Your task to perform on an android device: Show me popular videos on Youtube Image 0: 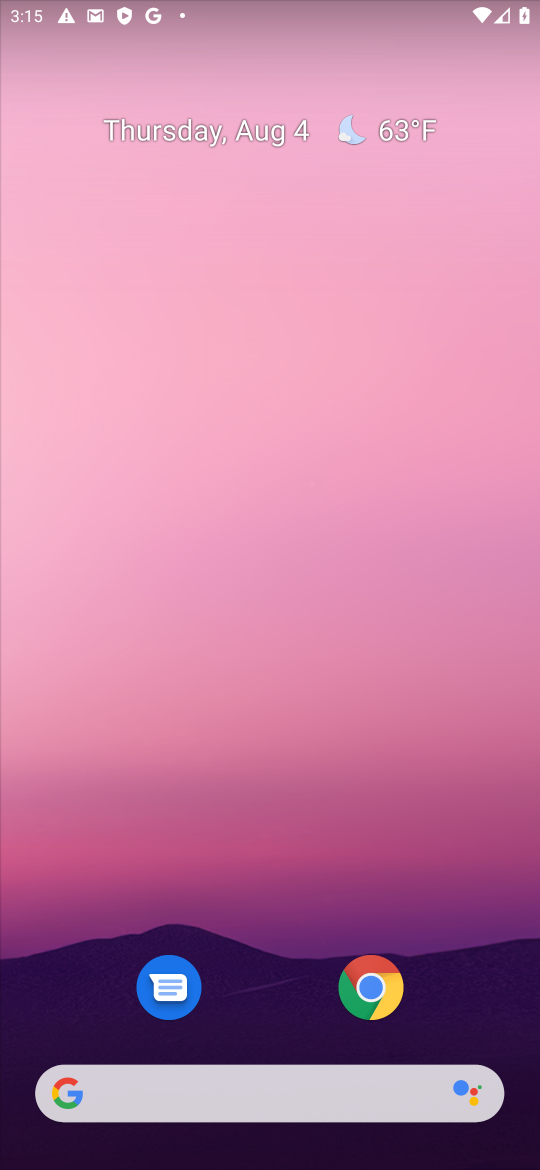
Step 0: drag from (234, 720) to (239, 5)
Your task to perform on an android device: Show me popular videos on Youtube Image 1: 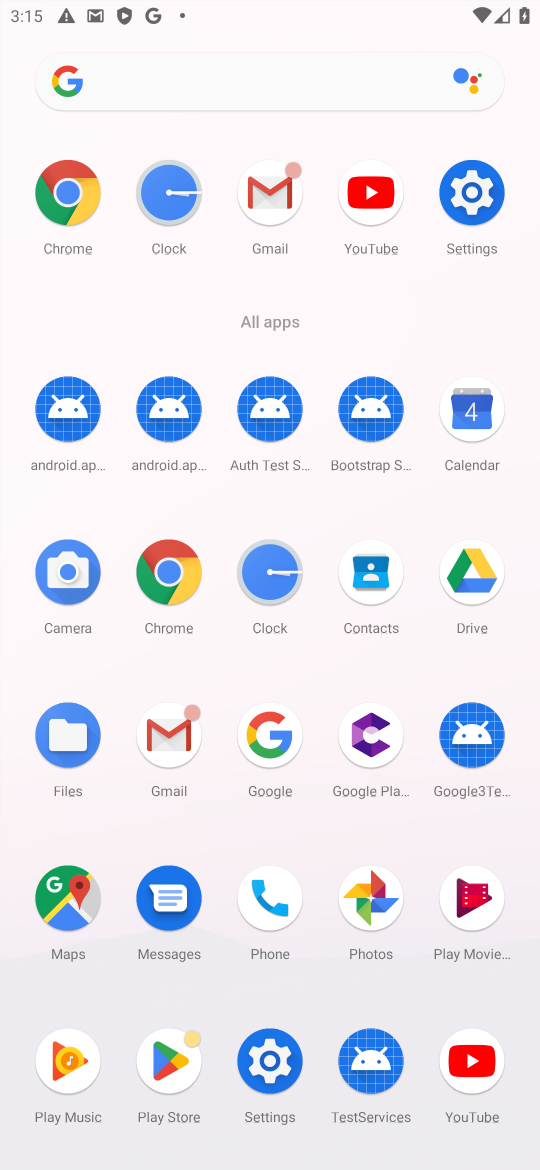
Step 1: click (465, 1064)
Your task to perform on an android device: Show me popular videos on Youtube Image 2: 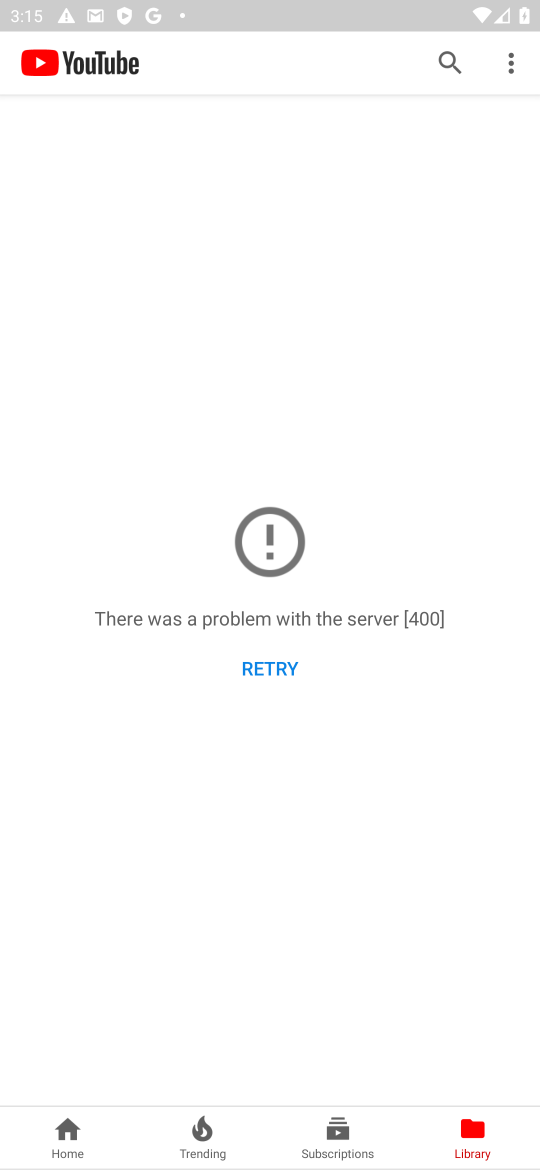
Step 2: task complete